Your task to perform on an android device: turn off javascript in the chrome app Image 0: 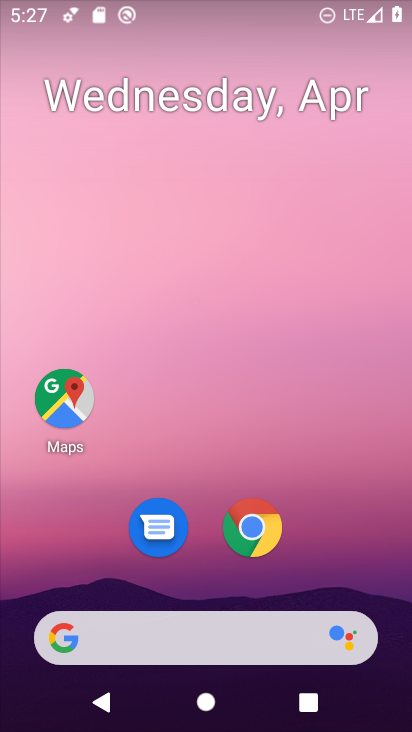
Step 0: click (259, 535)
Your task to perform on an android device: turn off javascript in the chrome app Image 1: 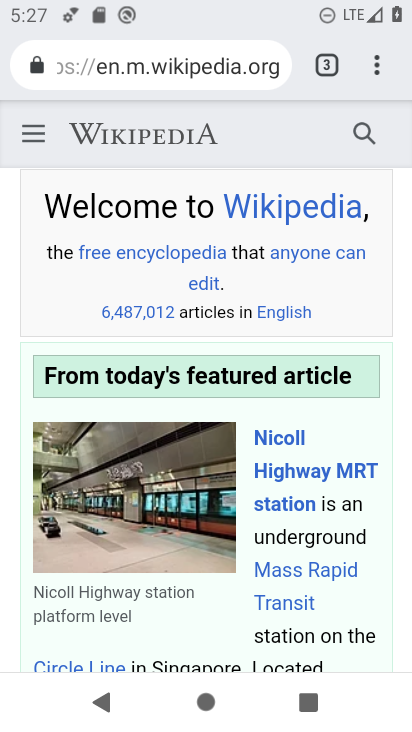
Step 1: click (377, 62)
Your task to perform on an android device: turn off javascript in the chrome app Image 2: 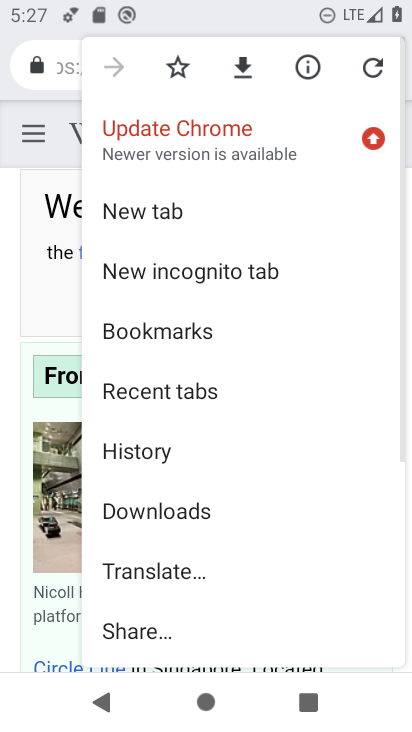
Step 2: drag from (212, 456) to (220, 100)
Your task to perform on an android device: turn off javascript in the chrome app Image 3: 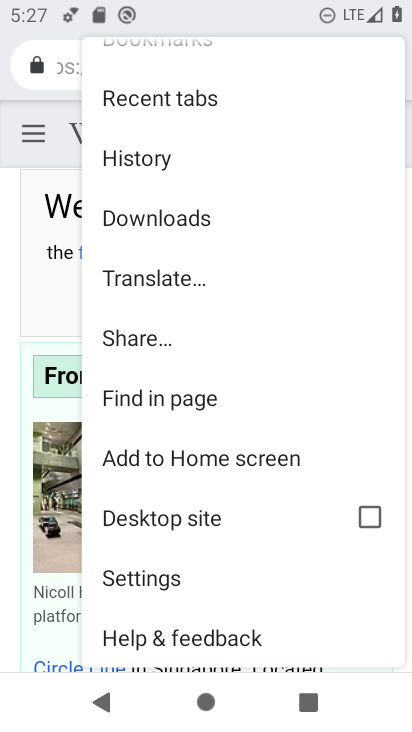
Step 3: click (146, 585)
Your task to perform on an android device: turn off javascript in the chrome app Image 4: 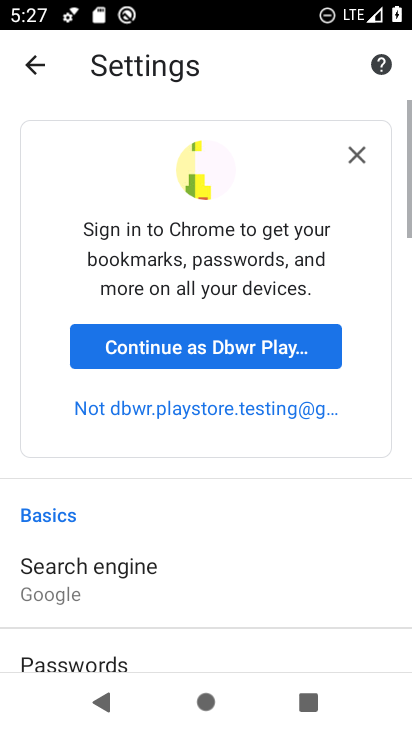
Step 4: drag from (146, 583) to (157, 142)
Your task to perform on an android device: turn off javascript in the chrome app Image 5: 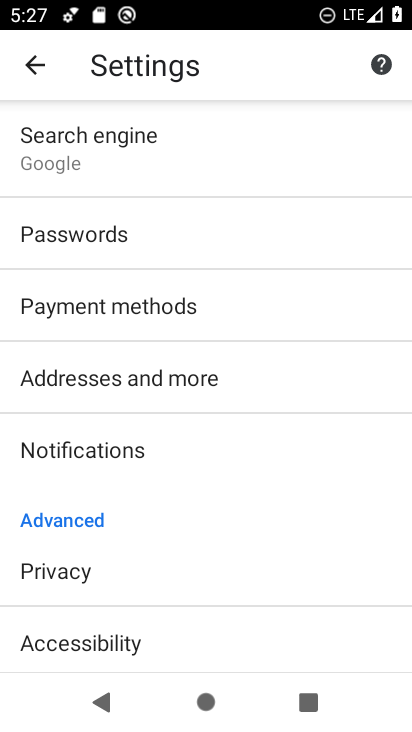
Step 5: drag from (125, 536) to (137, 179)
Your task to perform on an android device: turn off javascript in the chrome app Image 6: 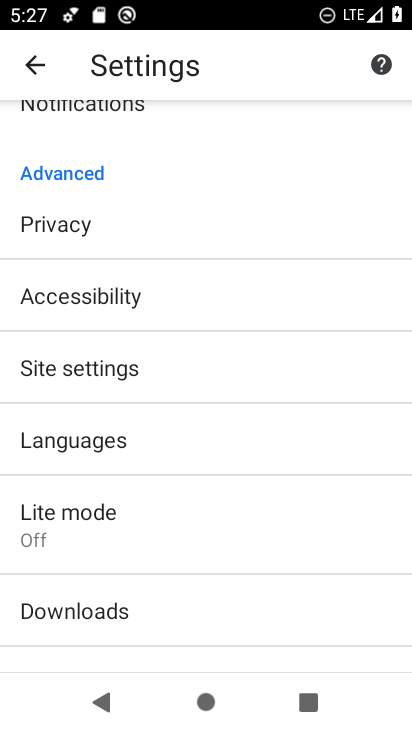
Step 6: click (56, 365)
Your task to perform on an android device: turn off javascript in the chrome app Image 7: 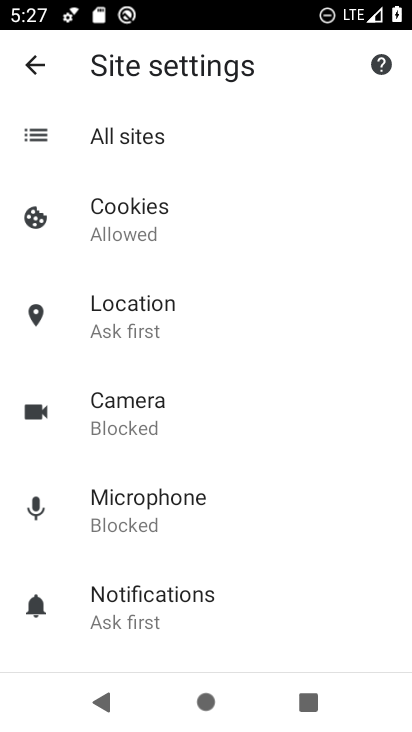
Step 7: drag from (234, 579) to (235, 283)
Your task to perform on an android device: turn off javascript in the chrome app Image 8: 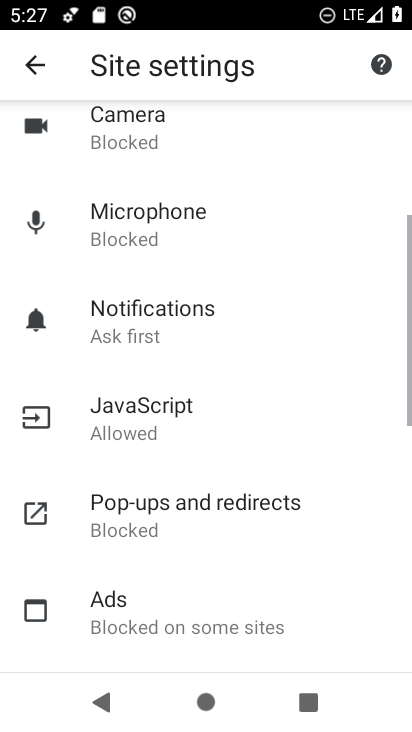
Step 8: click (146, 410)
Your task to perform on an android device: turn off javascript in the chrome app Image 9: 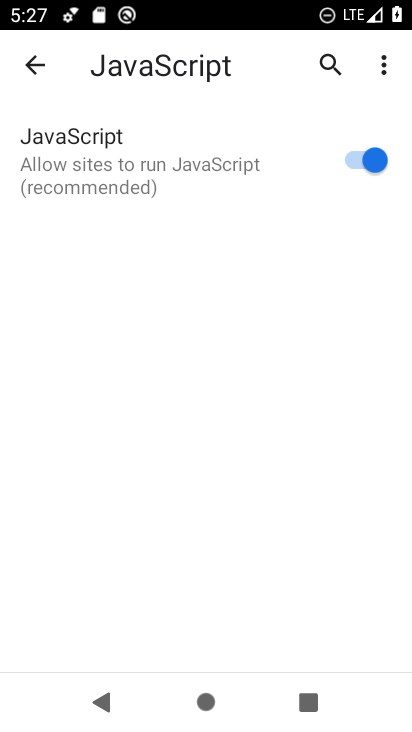
Step 9: click (374, 162)
Your task to perform on an android device: turn off javascript in the chrome app Image 10: 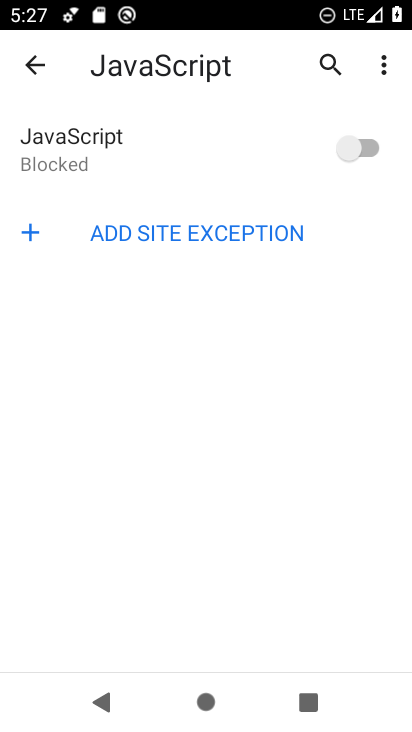
Step 10: task complete